Your task to perform on an android device: empty trash in the gmail app Image 0: 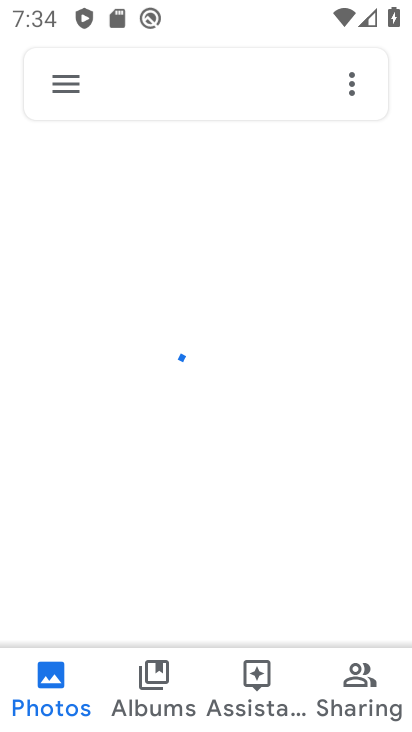
Step 0: press home button
Your task to perform on an android device: empty trash in the gmail app Image 1: 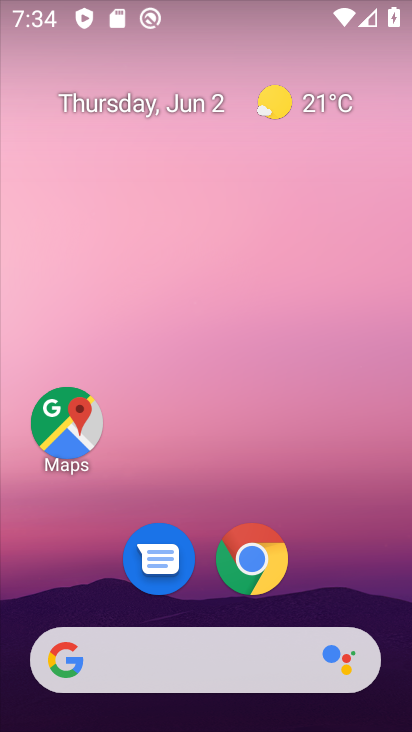
Step 1: click (221, 142)
Your task to perform on an android device: empty trash in the gmail app Image 2: 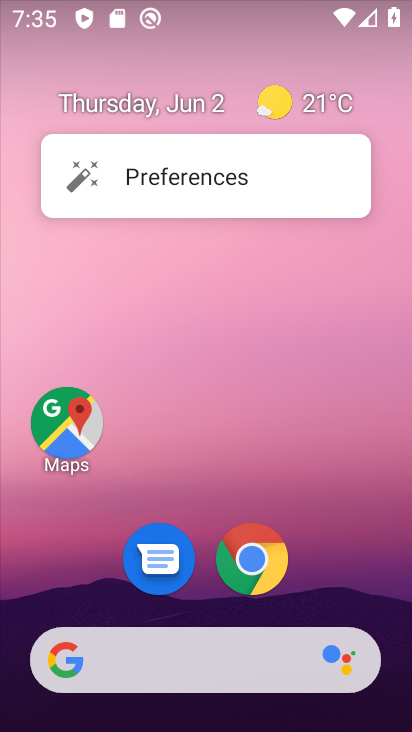
Step 2: drag from (201, 244) to (169, 100)
Your task to perform on an android device: empty trash in the gmail app Image 3: 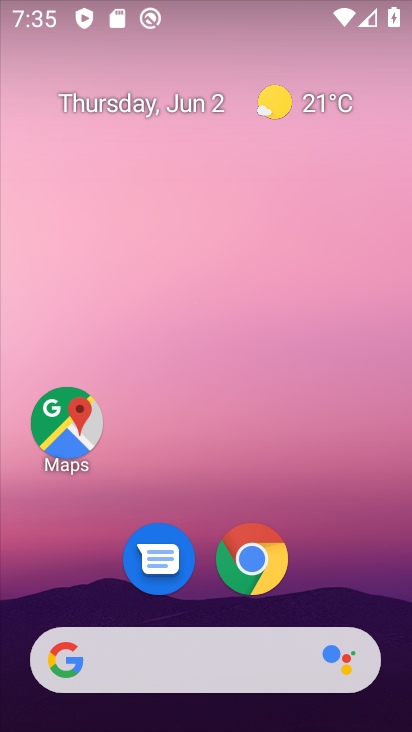
Step 3: drag from (242, 468) to (162, 73)
Your task to perform on an android device: empty trash in the gmail app Image 4: 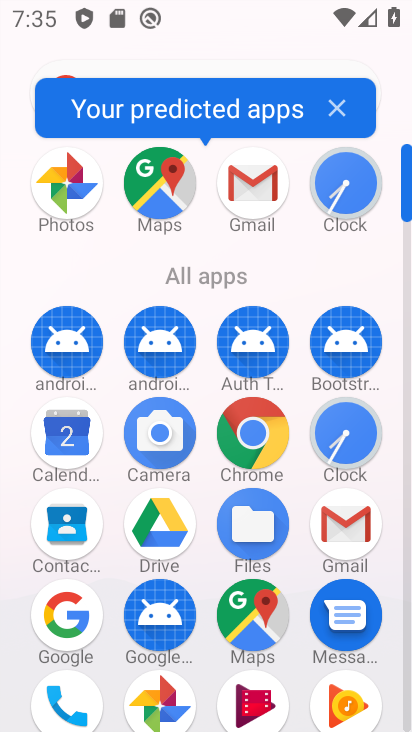
Step 4: click (245, 191)
Your task to perform on an android device: empty trash in the gmail app Image 5: 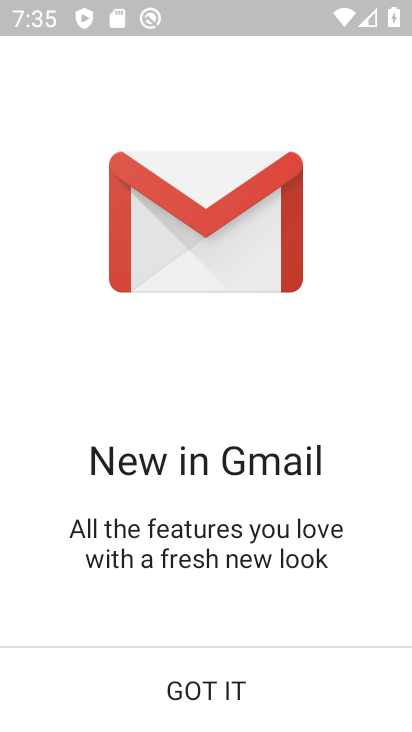
Step 5: click (206, 694)
Your task to perform on an android device: empty trash in the gmail app Image 6: 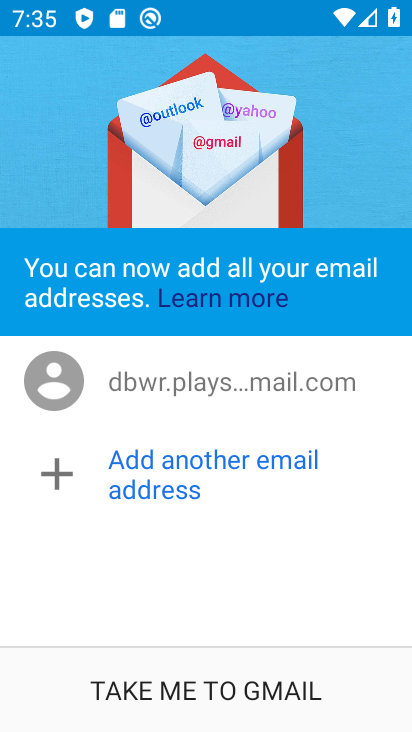
Step 6: click (215, 685)
Your task to perform on an android device: empty trash in the gmail app Image 7: 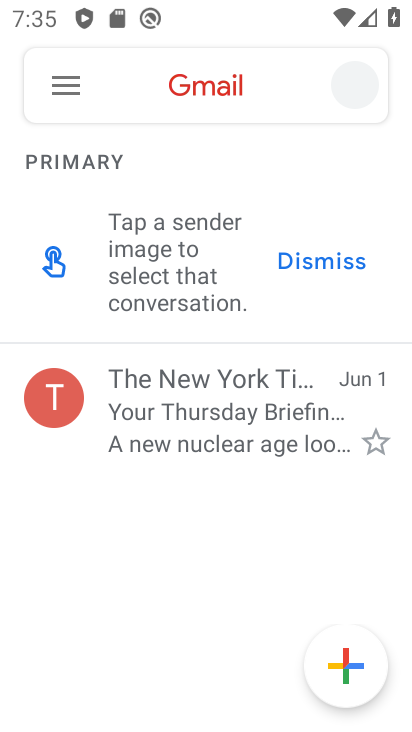
Step 7: click (53, 85)
Your task to perform on an android device: empty trash in the gmail app Image 8: 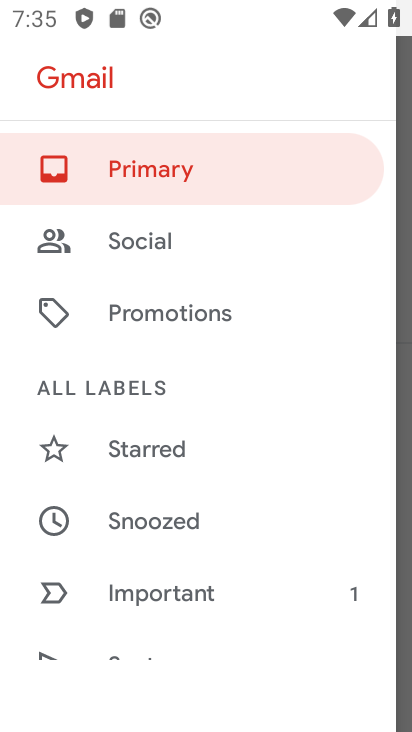
Step 8: drag from (219, 556) to (203, 214)
Your task to perform on an android device: empty trash in the gmail app Image 9: 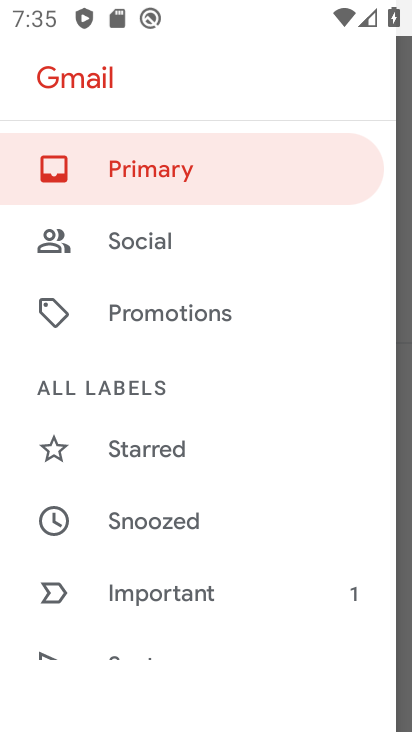
Step 9: drag from (265, 532) to (254, 166)
Your task to perform on an android device: empty trash in the gmail app Image 10: 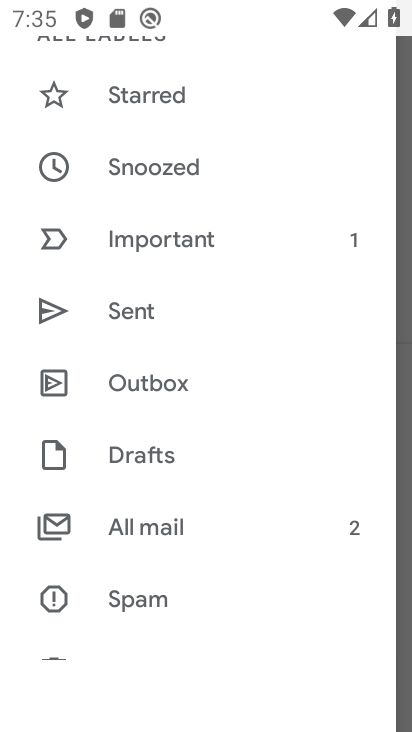
Step 10: drag from (240, 546) to (215, 138)
Your task to perform on an android device: empty trash in the gmail app Image 11: 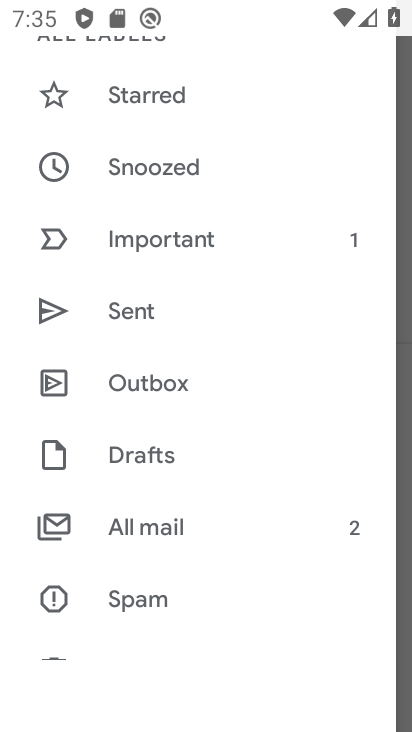
Step 11: drag from (255, 575) to (261, 171)
Your task to perform on an android device: empty trash in the gmail app Image 12: 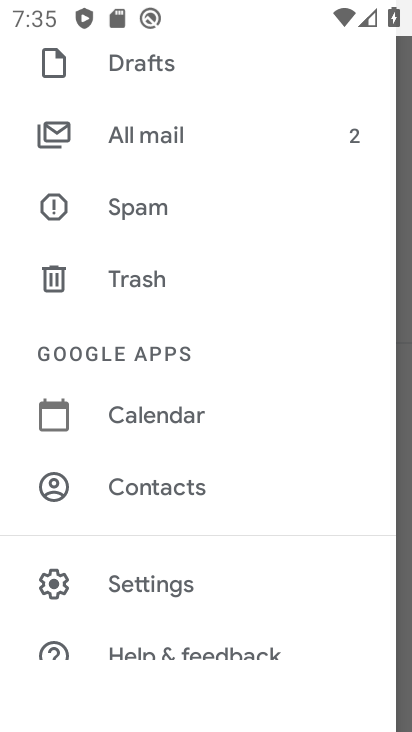
Step 12: click (142, 281)
Your task to perform on an android device: empty trash in the gmail app Image 13: 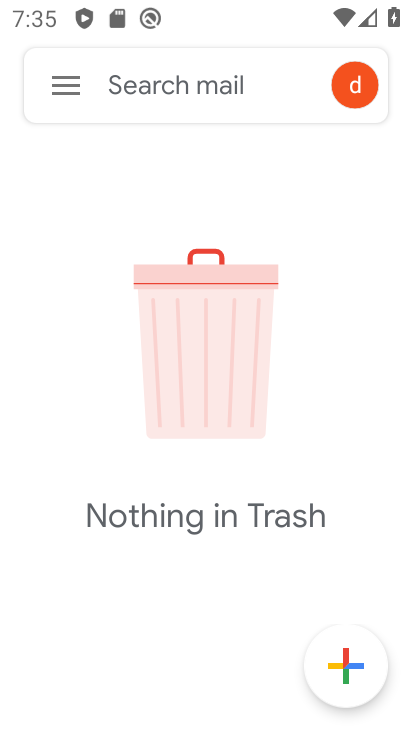
Step 13: task complete